Your task to perform on an android device: star an email in the gmail app Image 0: 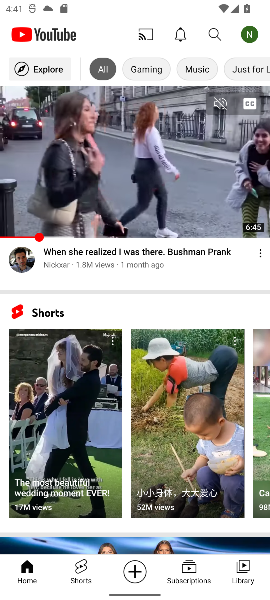
Step 0: task complete